Your task to perform on an android device: Open Android settings Image 0: 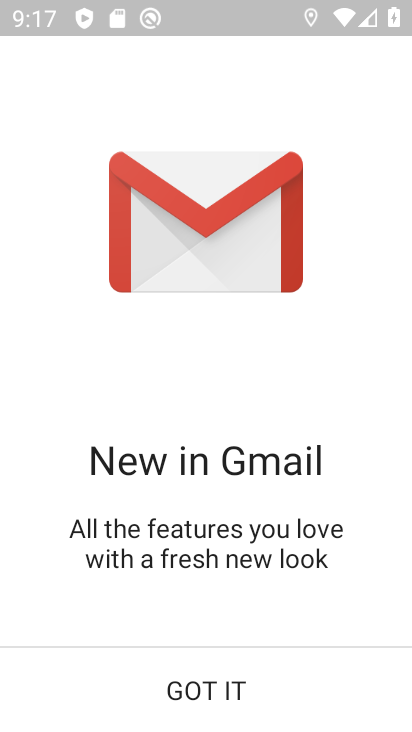
Step 0: press home button
Your task to perform on an android device: Open Android settings Image 1: 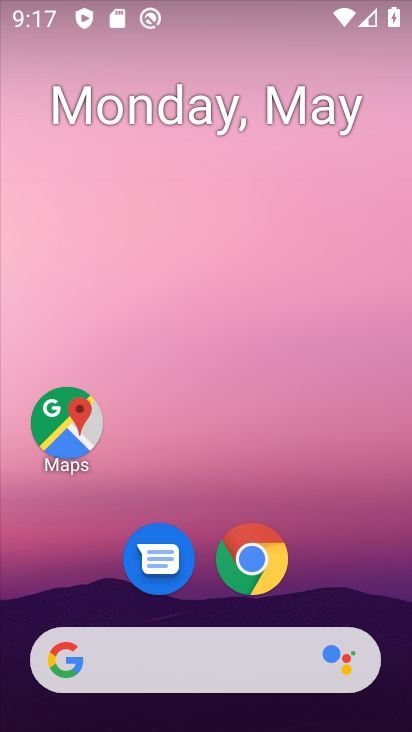
Step 1: drag from (47, 613) to (229, 8)
Your task to perform on an android device: Open Android settings Image 2: 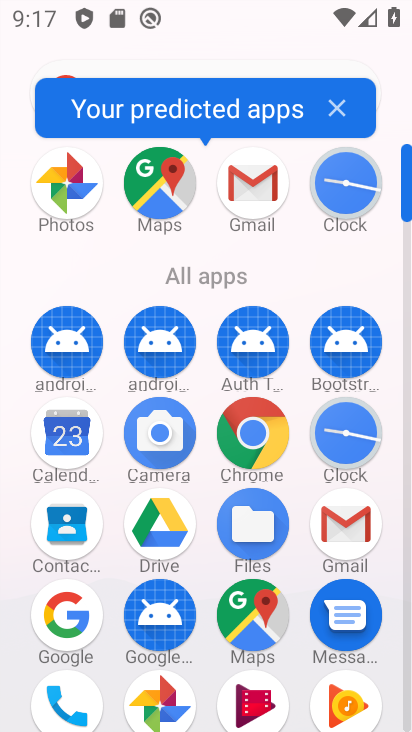
Step 2: drag from (149, 625) to (214, 297)
Your task to perform on an android device: Open Android settings Image 3: 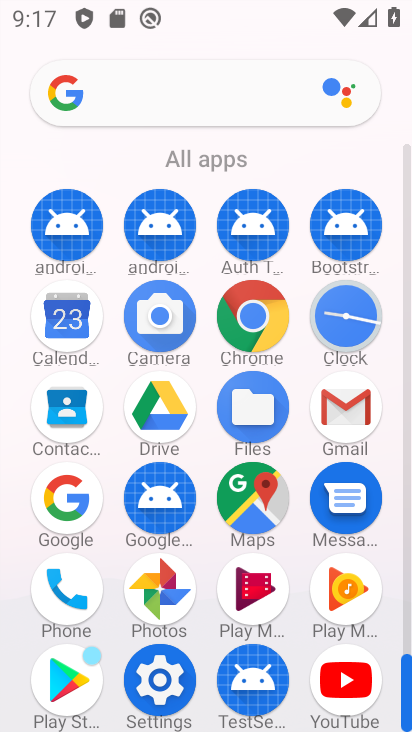
Step 3: click (157, 673)
Your task to perform on an android device: Open Android settings Image 4: 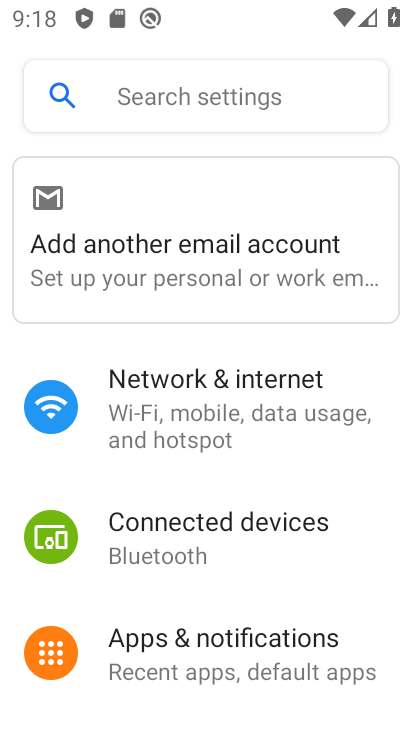
Step 4: task complete